Your task to perform on an android device: change the clock display to show seconds Image 0: 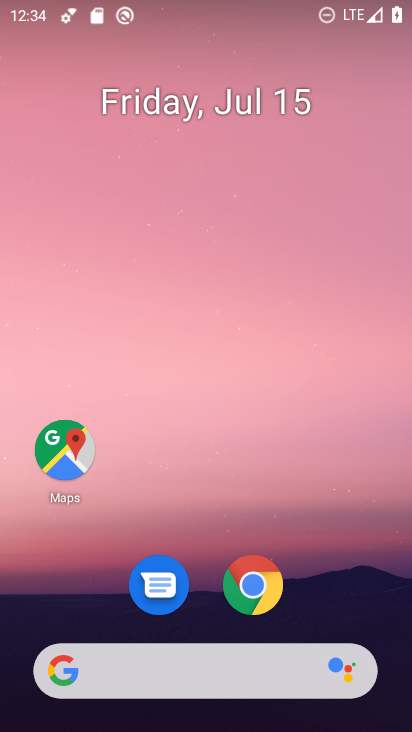
Step 0: drag from (228, 524) to (261, 93)
Your task to perform on an android device: change the clock display to show seconds Image 1: 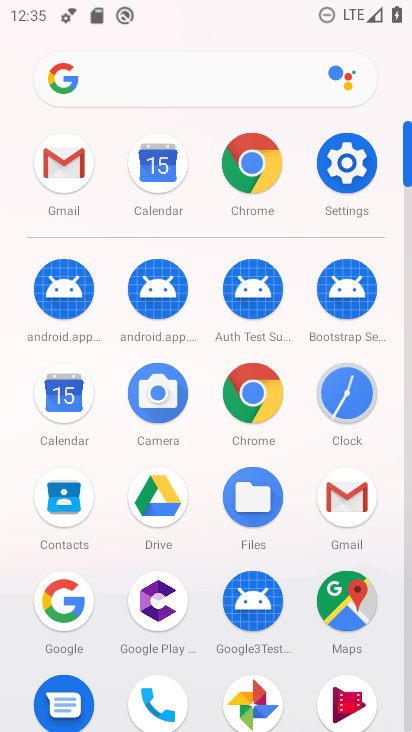
Step 1: click (346, 385)
Your task to perform on an android device: change the clock display to show seconds Image 2: 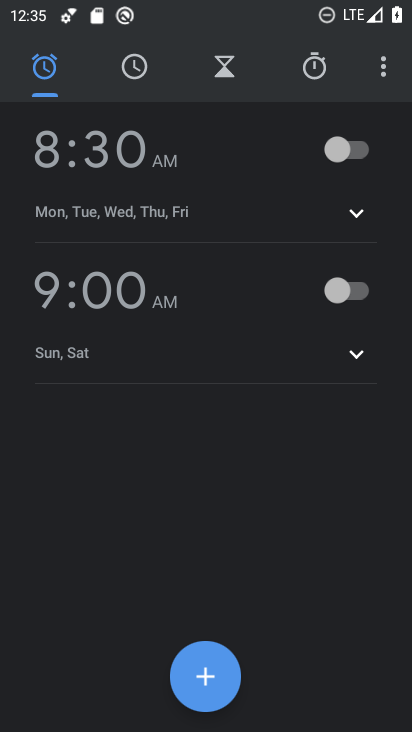
Step 2: click (140, 58)
Your task to perform on an android device: change the clock display to show seconds Image 3: 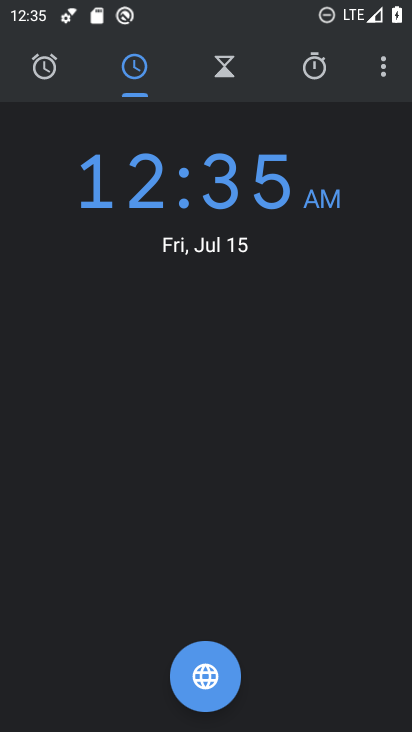
Step 3: click (389, 70)
Your task to perform on an android device: change the clock display to show seconds Image 4: 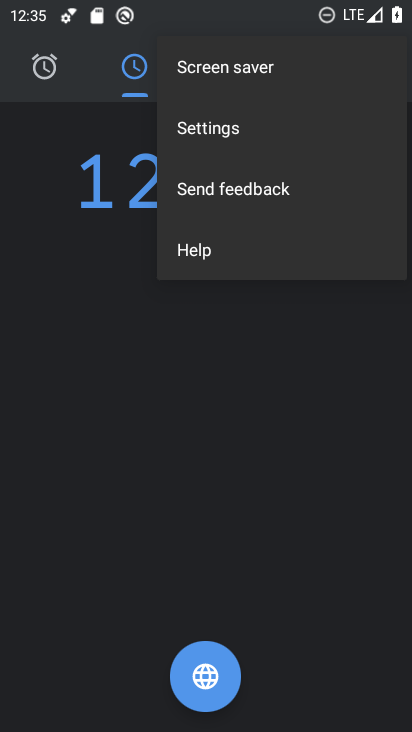
Step 4: click (302, 135)
Your task to perform on an android device: change the clock display to show seconds Image 5: 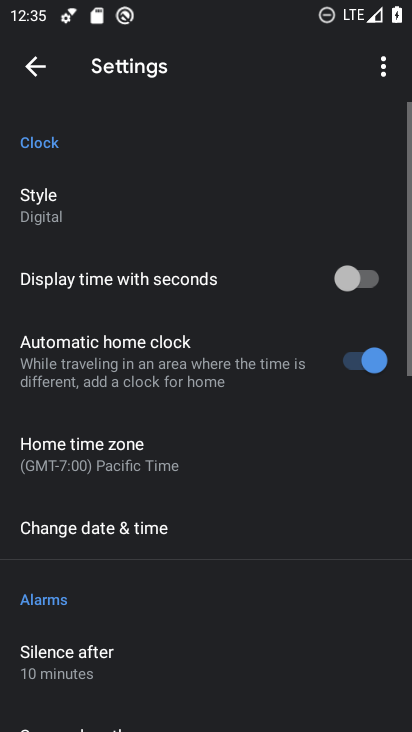
Step 5: click (362, 290)
Your task to perform on an android device: change the clock display to show seconds Image 6: 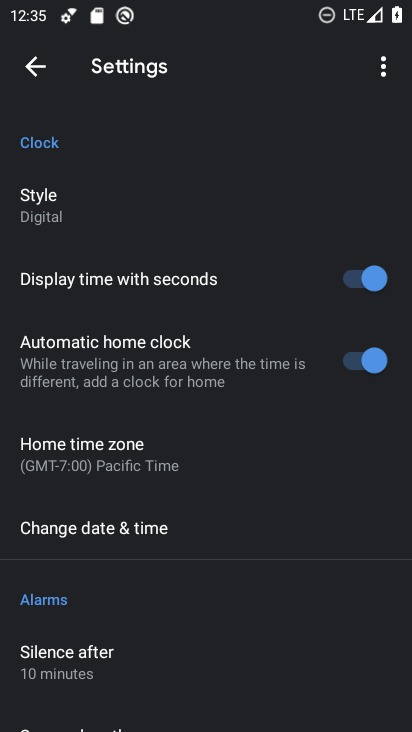
Step 6: click (39, 61)
Your task to perform on an android device: change the clock display to show seconds Image 7: 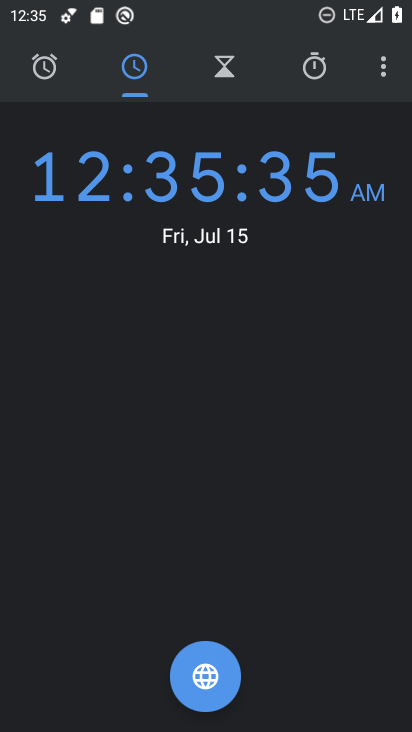
Step 7: task complete